Your task to perform on an android device: Turn on the flashlight Image 0: 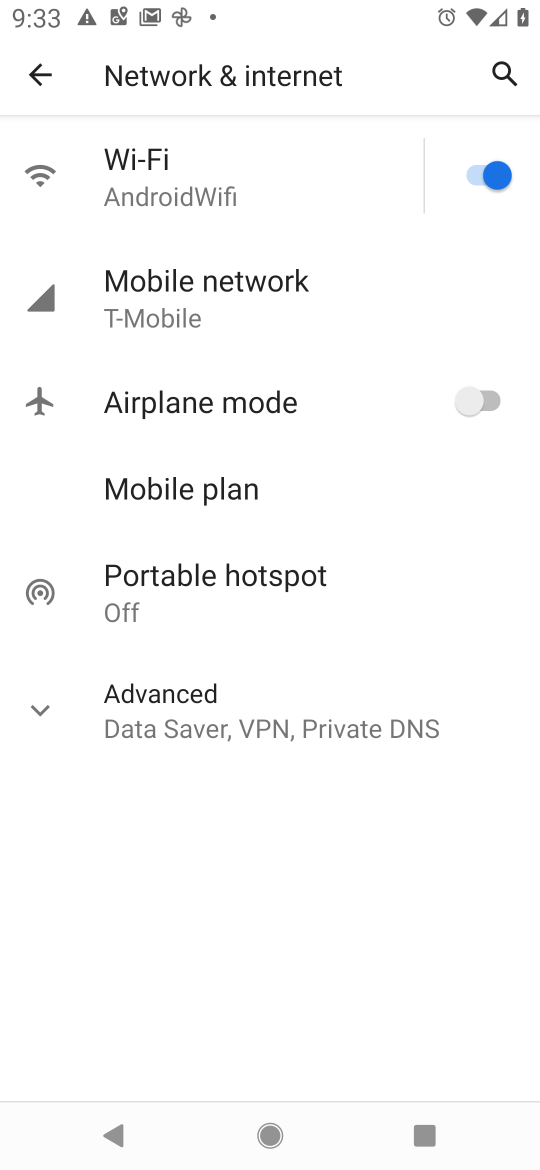
Step 0: press home button
Your task to perform on an android device: Turn on the flashlight Image 1: 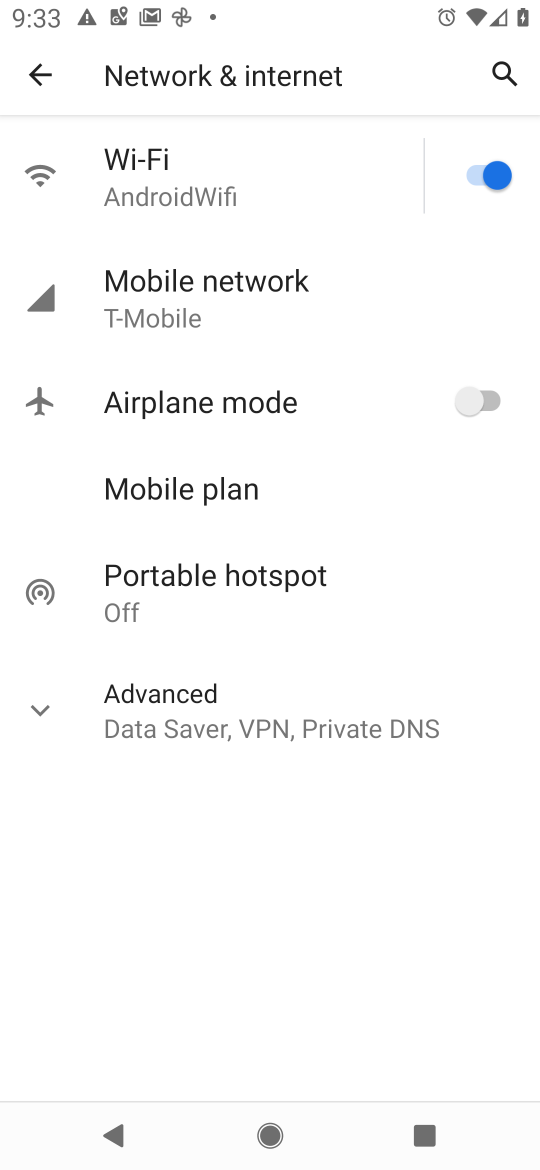
Step 1: drag from (475, 1032) to (222, 63)
Your task to perform on an android device: Turn on the flashlight Image 2: 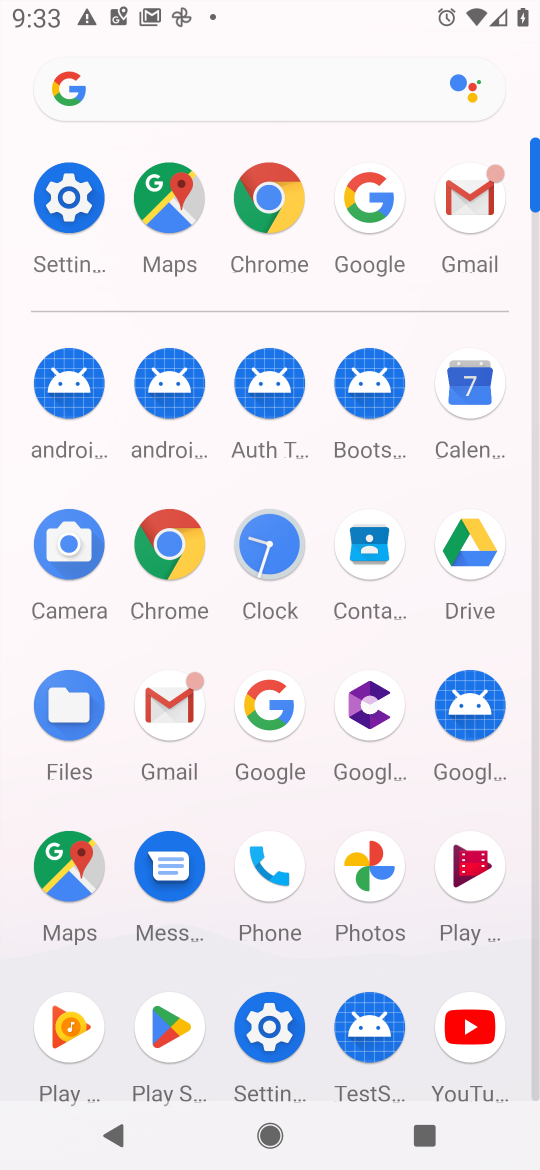
Step 2: click (67, 175)
Your task to perform on an android device: Turn on the flashlight Image 3: 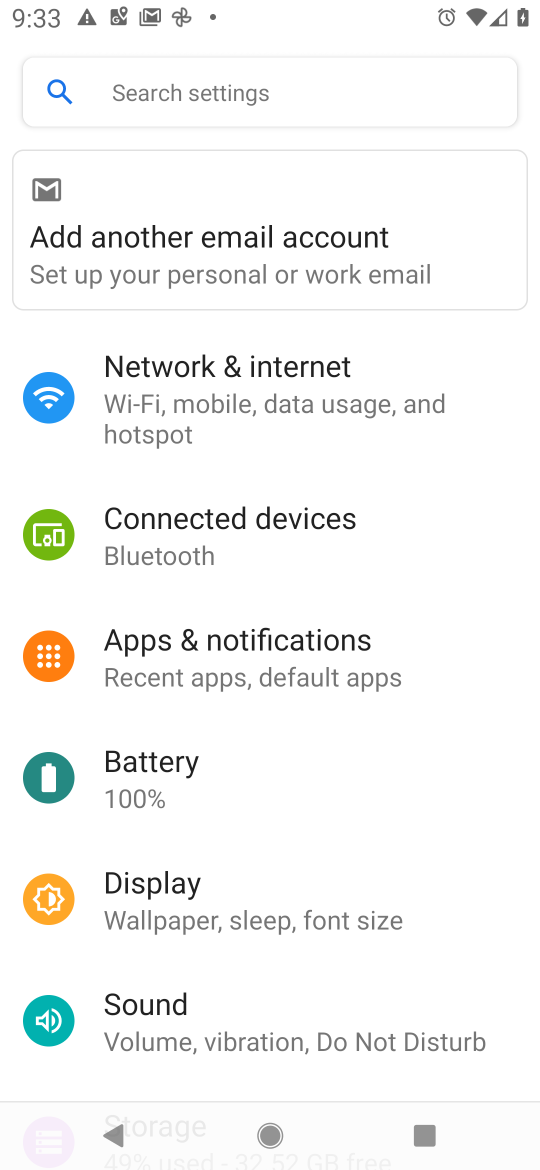
Step 3: task complete